Your task to perform on an android device: Open Maps and search for coffee Image 0: 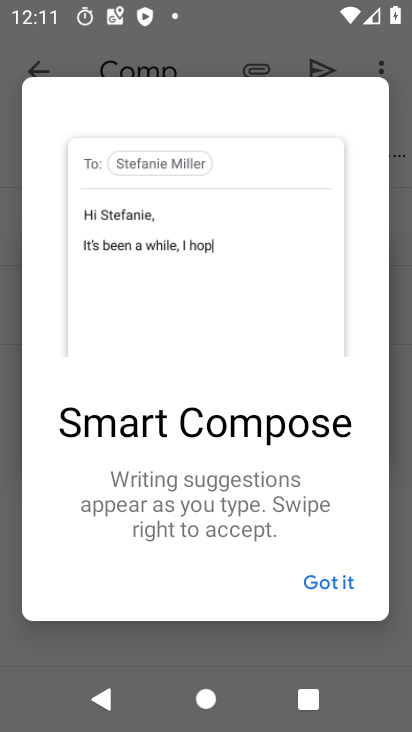
Step 0: press home button
Your task to perform on an android device: Open Maps and search for coffee Image 1: 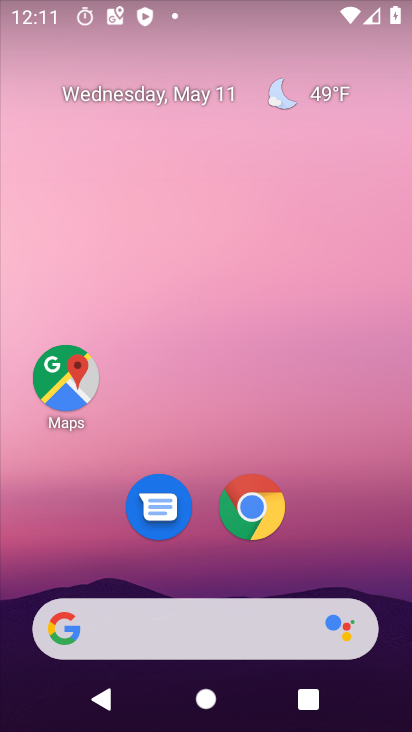
Step 1: click (63, 382)
Your task to perform on an android device: Open Maps and search for coffee Image 2: 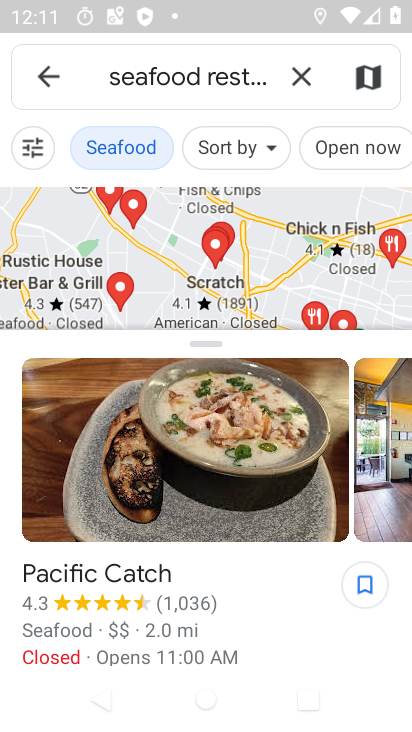
Step 2: click (295, 71)
Your task to perform on an android device: Open Maps and search for coffee Image 3: 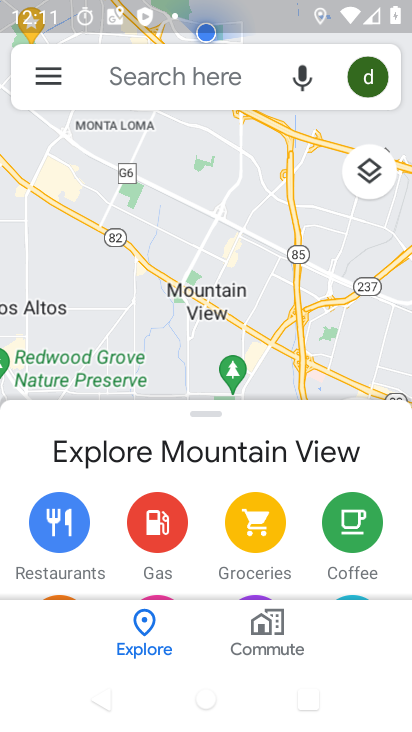
Step 3: click (202, 74)
Your task to perform on an android device: Open Maps and search for coffee Image 4: 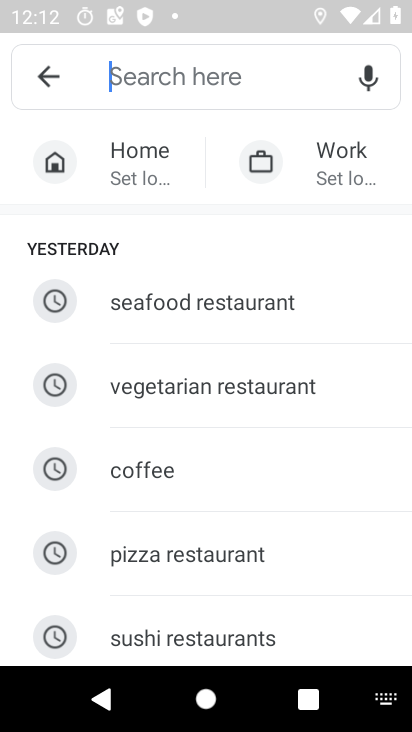
Step 4: drag from (278, 547) to (262, 203)
Your task to perform on an android device: Open Maps and search for coffee Image 5: 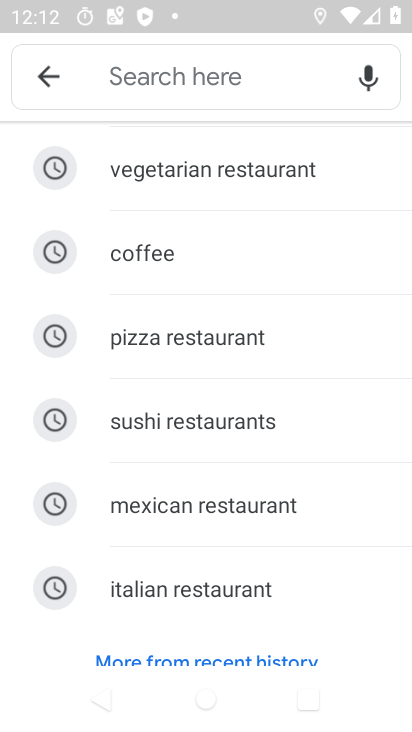
Step 5: click (173, 248)
Your task to perform on an android device: Open Maps and search for coffee Image 6: 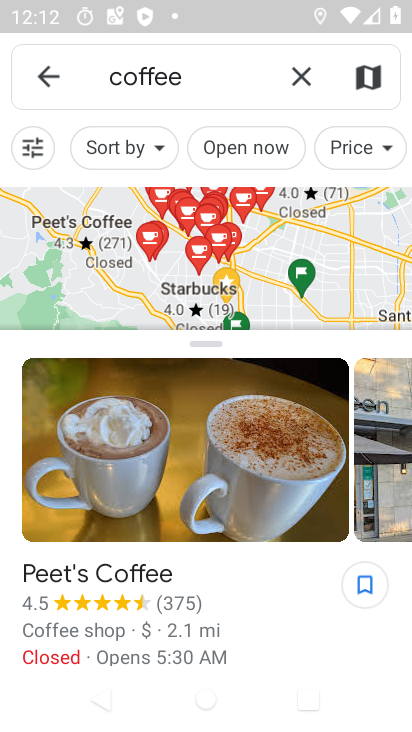
Step 6: task complete